Your task to perform on an android device: Open location settings Image 0: 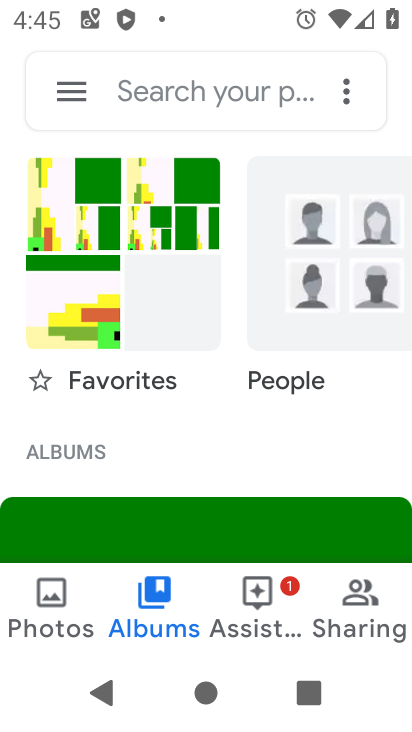
Step 0: press home button
Your task to perform on an android device: Open location settings Image 1: 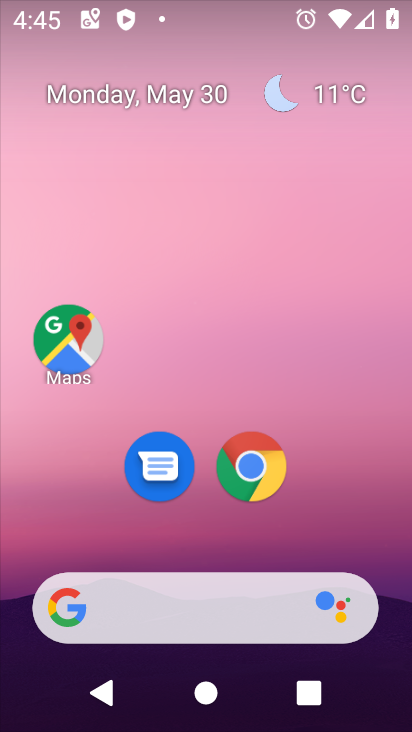
Step 1: drag from (335, 475) to (281, 55)
Your task to perform on an android device: Open location settings Image 2: 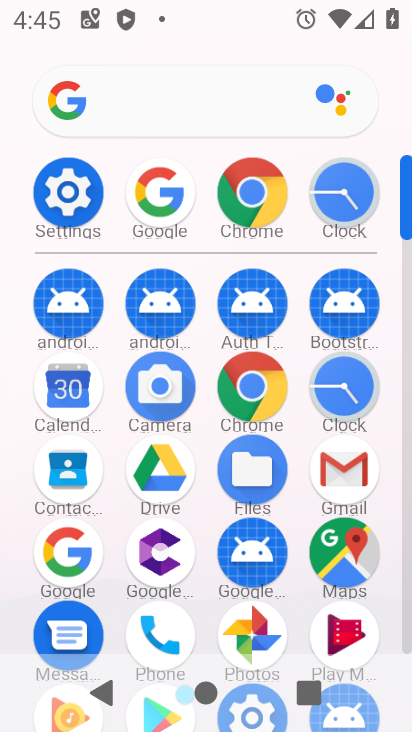
Step 2: click (87, 179)
Your task to perform on an android device: Open location settings Image 3: 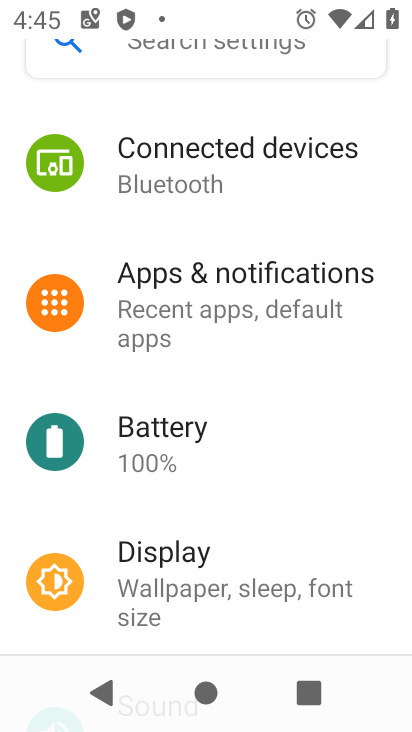
Step 3: drag from (232, 466) to (269, 148)
Your task to perform on an android device: Open location settings Image 4: 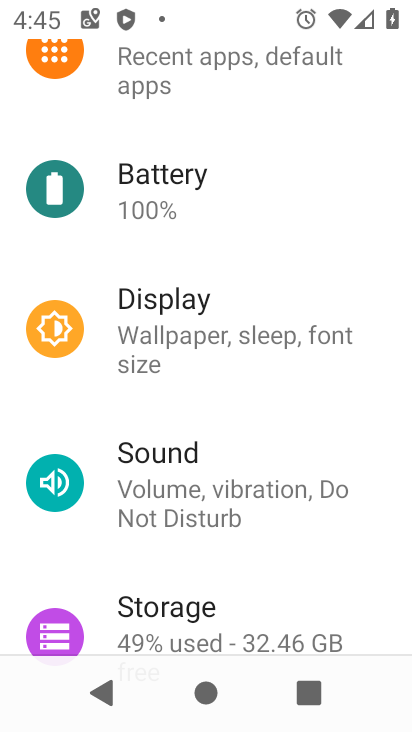
Step 4: drag from (265, 495) to (317, 161)
Your task to perform on an android device: Open location settings Image 5: 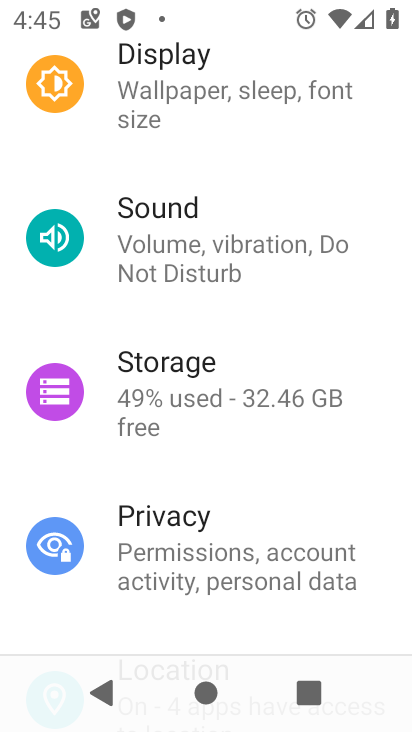
Step 5: drag from (329, 149) to (350, 512)
Your task to perform on an android device: Open location settings Image 6: 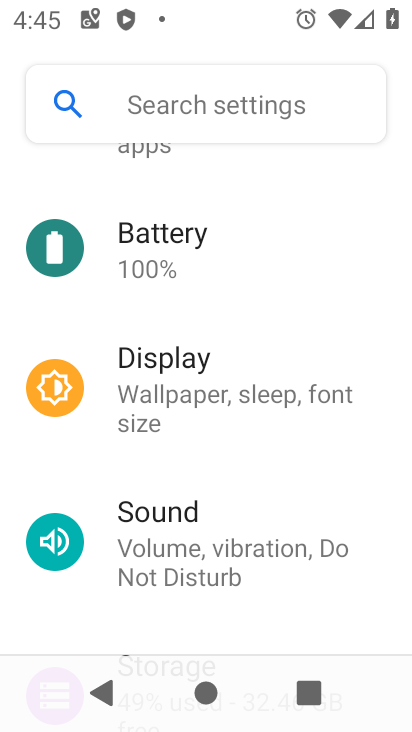
Step 6: drag from (266, 257) to (303, 11)
Your task to perform on an android device: Open location settings Image 7: 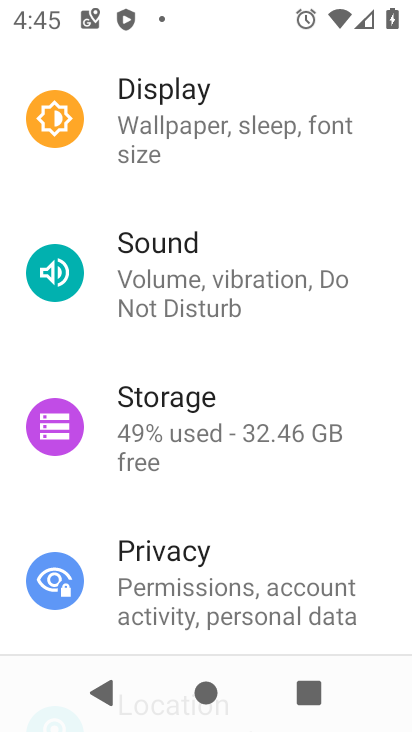
Step 7: drag from (278, 480) to (326, 54)
Your task to perform on an android device: Open location settings Image 8: 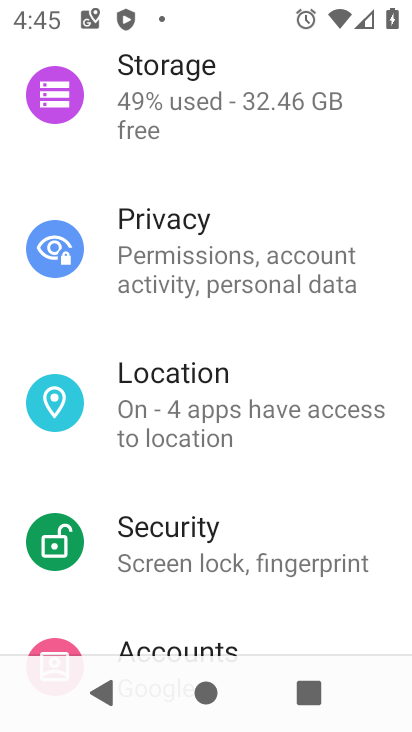
Step 8: drag from (309, 450) to (296, 187)
Your task to perform on an android device: Open location settings Image 9: 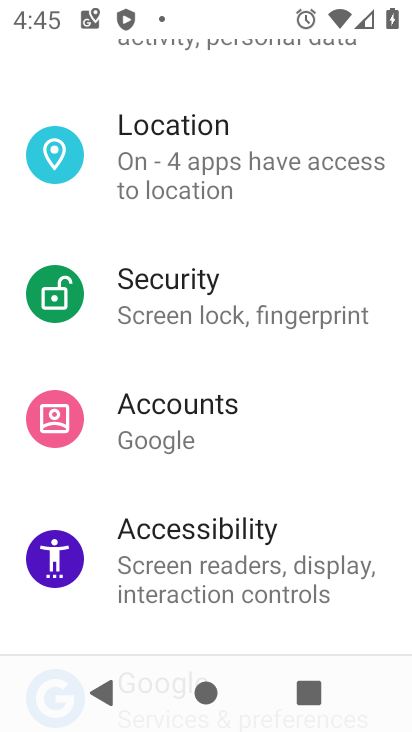
Step 9: click (189, 158)
Your task to perform on an android device: Open location settings Image 10: 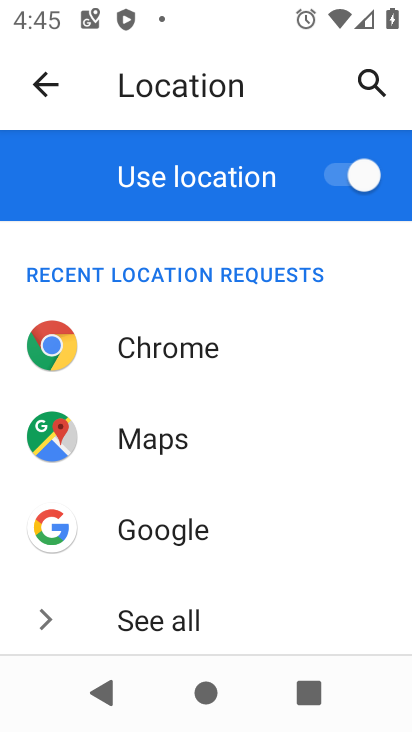
Step 10: task complete